Your task to perform on an android device: open chrome and create a bookmark for the current page Image 0: 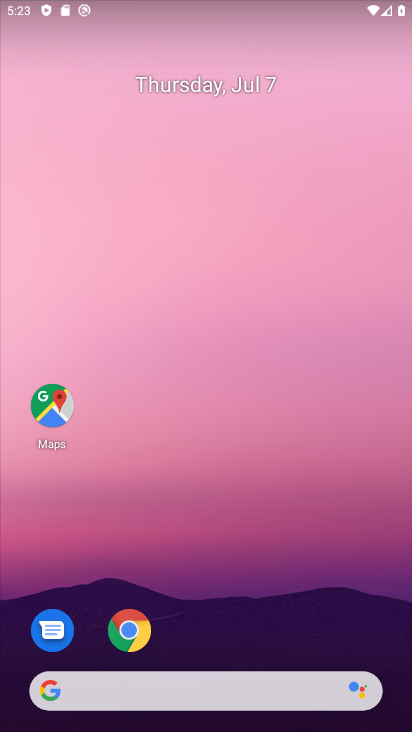
Step 0: press home button
Your task to perform on an android device: open chrome and create a bookmark for the current page Image 1: 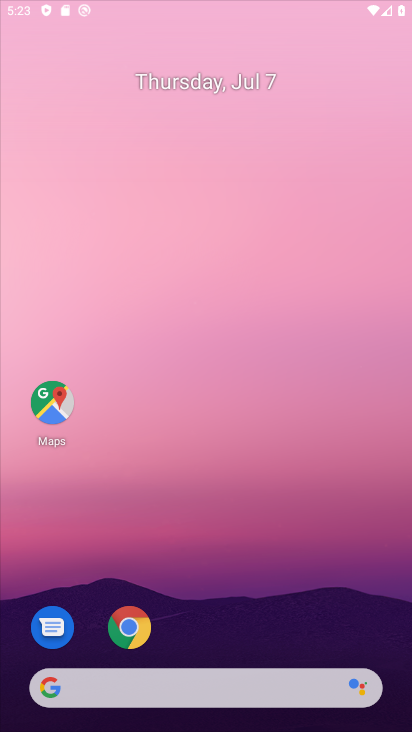
Step 1: click (52, 700)
Your task to perform on an android device: open chrome and create a bookmark for the current page Image 2: 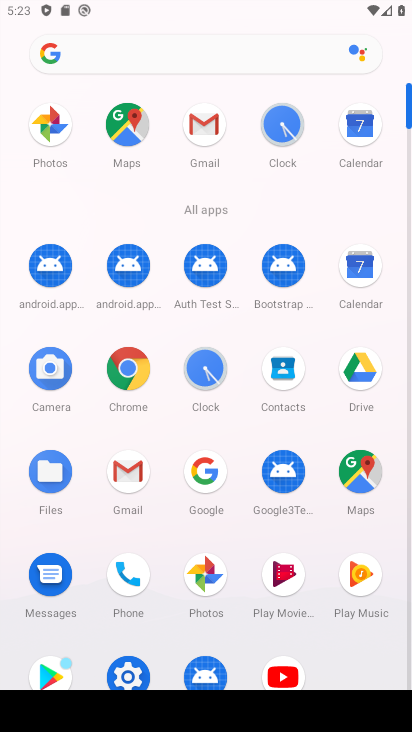
Step 2: press home button
Your task to perform on an android device: open chrome and create a bookmark for the current page Image 3: 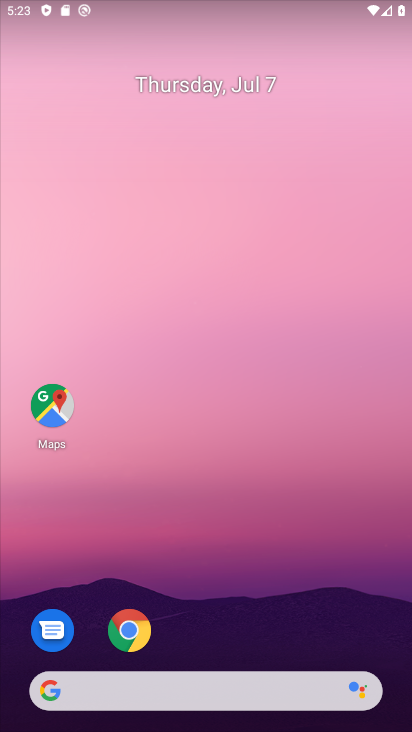
Step 3: drag from (259, 651) to (233, 38)
Your task to perform on an android device: open chrome and create a bookmark for the current page Image 4: 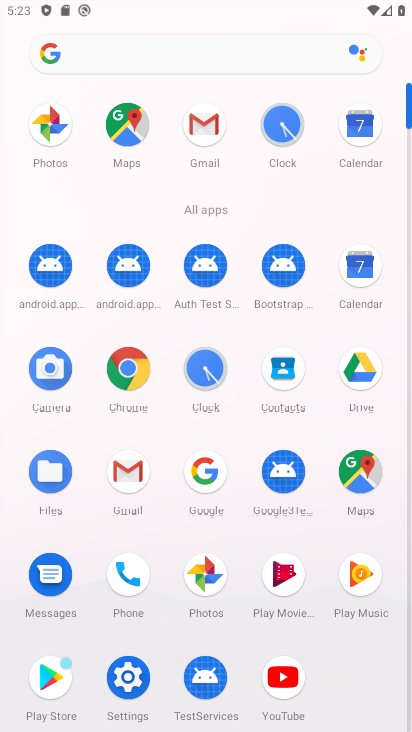
Step 4: click (127, 368)
Your task to perform on an android device: open chrome and create a bookmark for the current page Image 5: 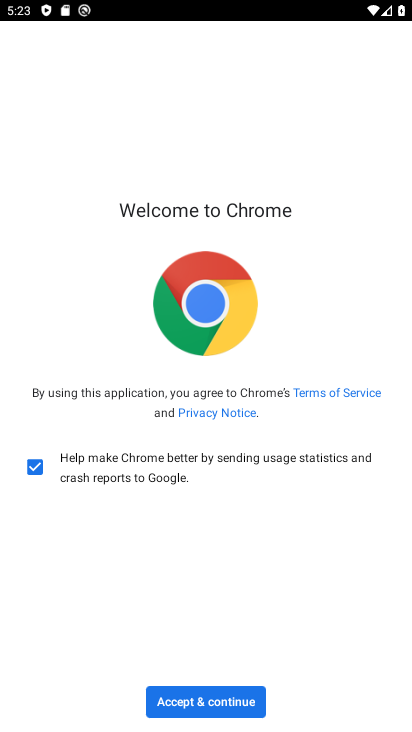
Step 5: click (184, 702)
Your task to perform on an android device: open chrome and create a bookmark for the current page Image 6: 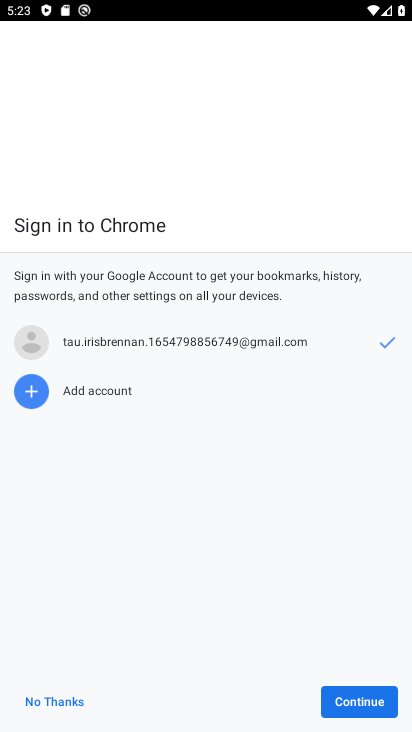
Step 6: click (378, 704)
Your task to perform on an android device: open chrome and create a bookmark for the current page Image 7: 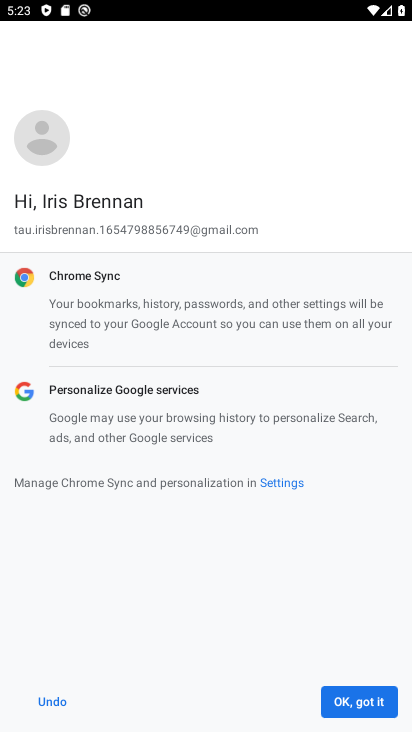
Step 7: click (341, 706)
Your task to perform on an android device: open chrome and create a bookmark for the current page Image 8: 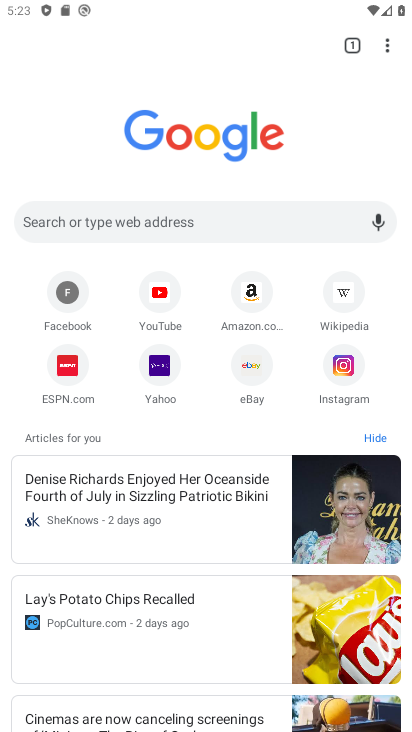
Step 8: click (353, 40)
Your task to perform on an android device: open chrome and create a bookmark for the current page Image 9: 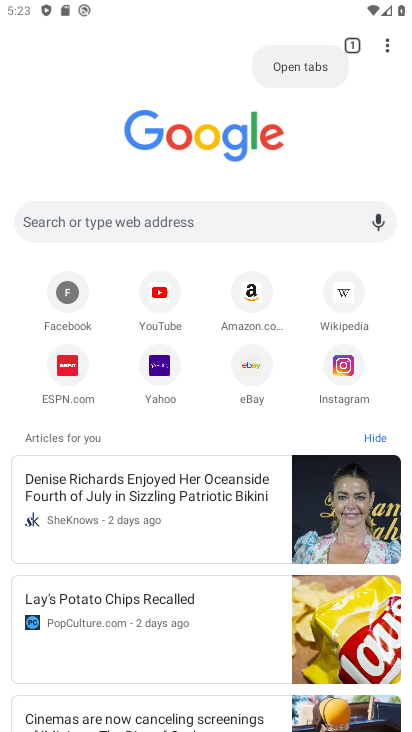
Step 9: click (382, 52)
Your task to perform on an android device: open chrome and create a bookmark for the current page Image 10: 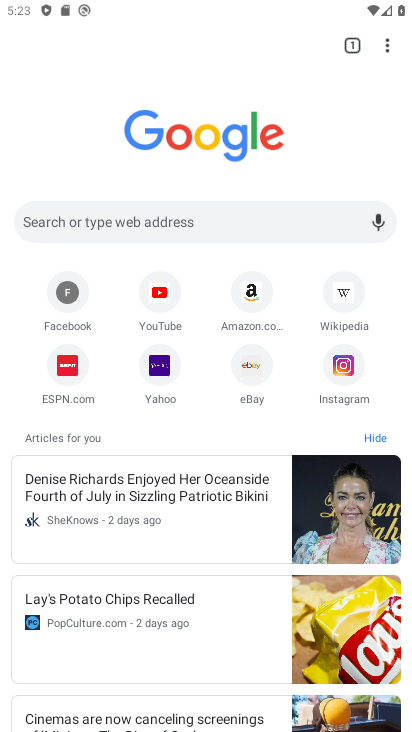
Step 10: click (390, 46)
Your task to perform on an android device: open chrome and create a bookmark for the current page Image 11: 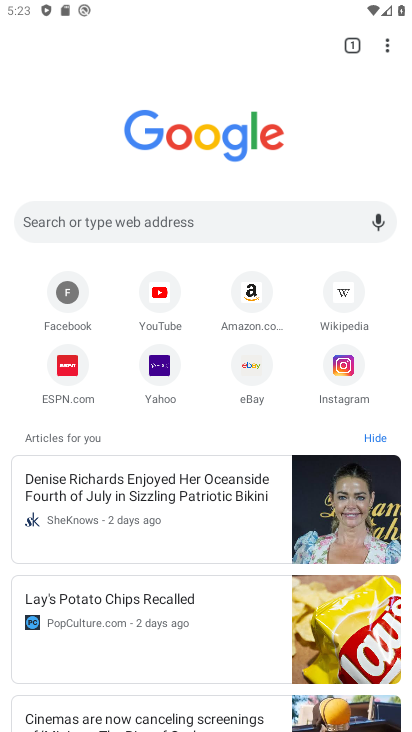
Step 11: drag from (390, 46) to (238, 56)
Your task to perform on an android device: open chrome and create a bookmark for the current page Image 12: 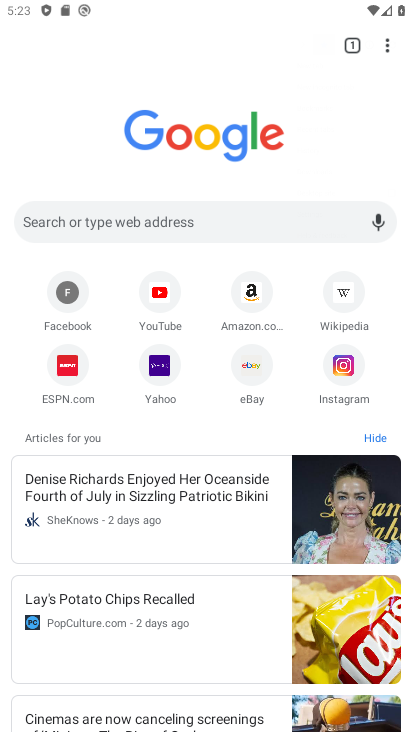
Step 12: click (245, 49)
Your task to perform on an android device: open chrome and create a bookmark for the current page Image 13: 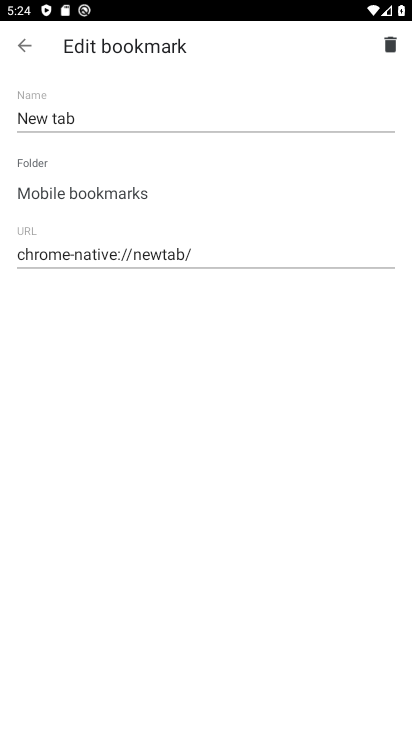
Step 13: task complete